Your task to perform on an android device: What is the recent news? Image 0: 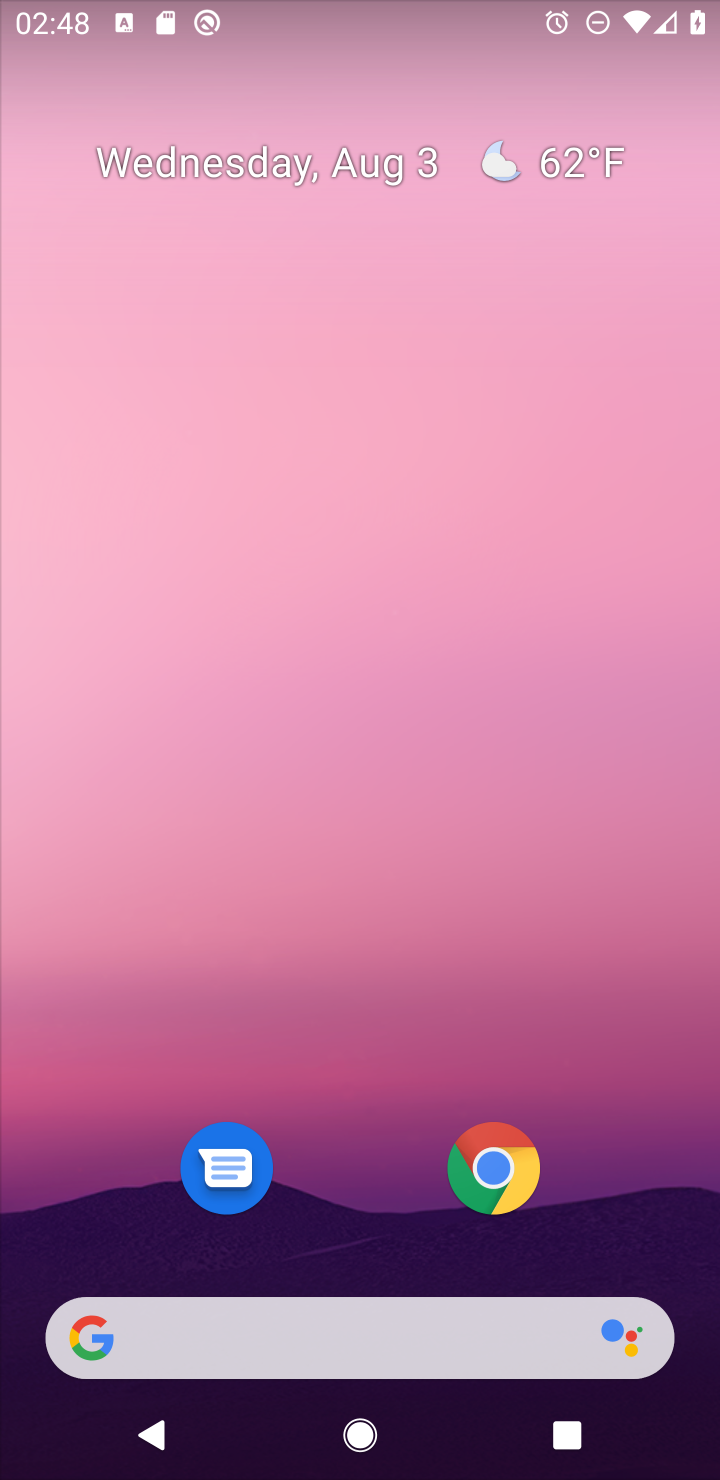
Step 0: click (6, 717)
Your task to perform on an android device: What is the recent news? Image 1: 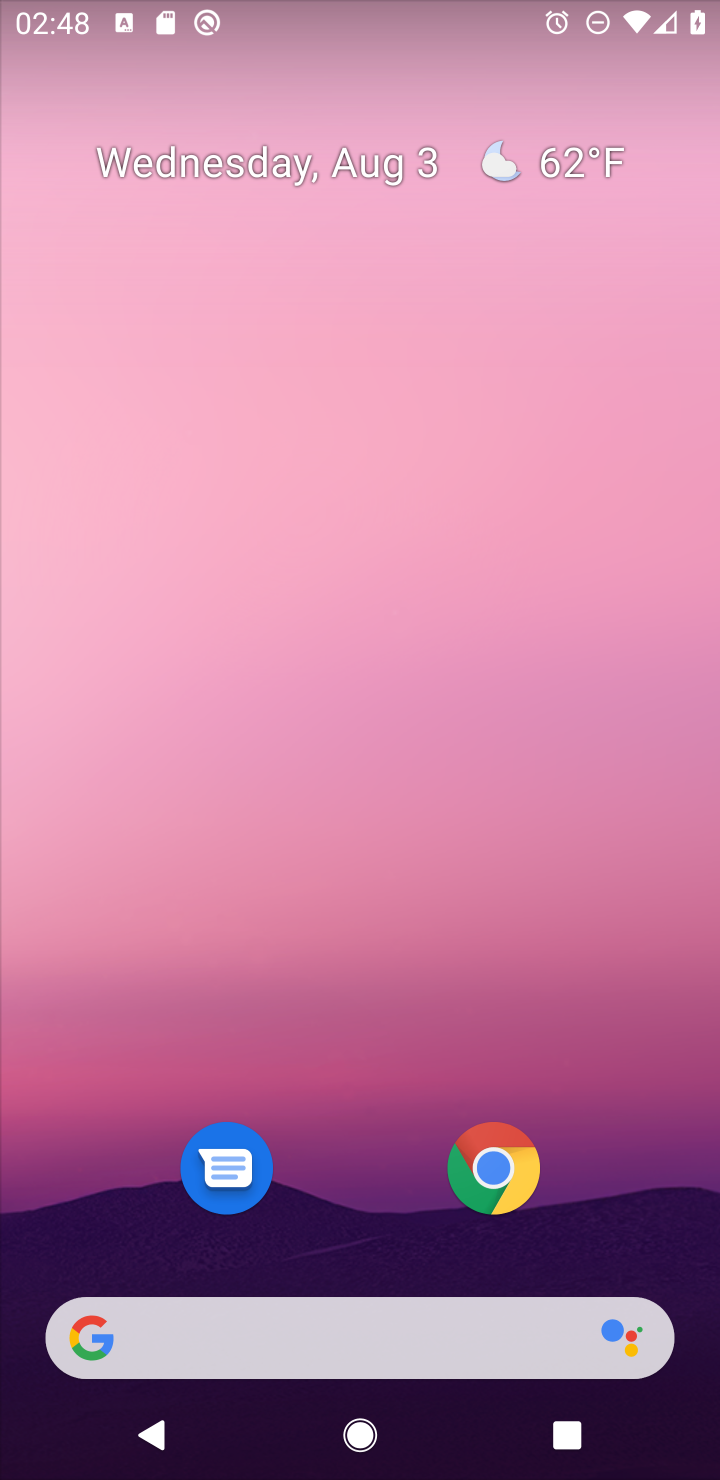
Step 1: task complete